Your task to perform on an android device: change the clock display to analog Image 0: 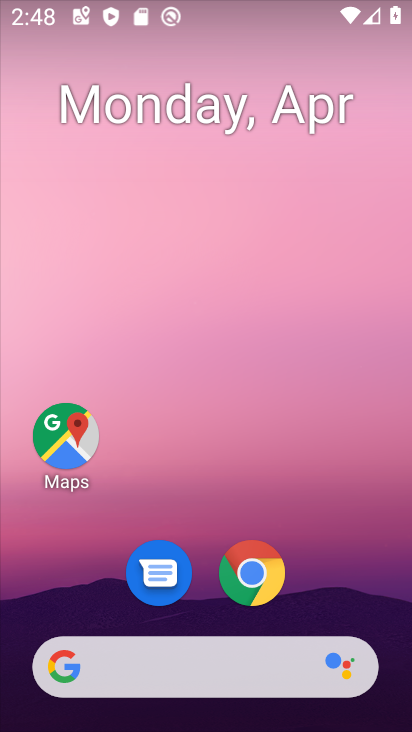
Step 0: drag from (352, 573) to (364, 112)
Your task to perform on an android device: change the clock display to analog Image 1: 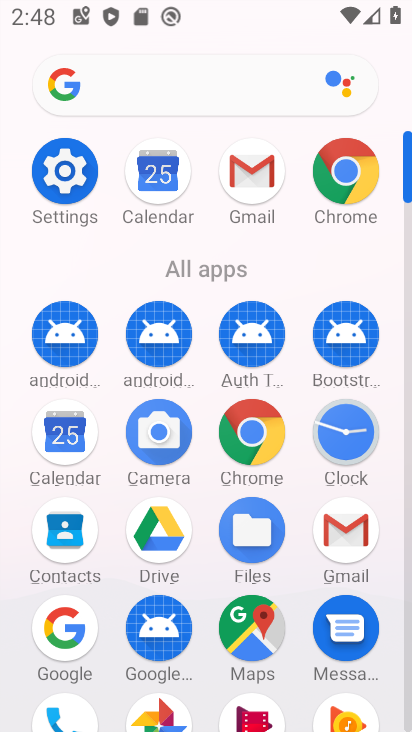
Step 1: click (355, 430)
Your task to perform on an android device: change the clock display to analog Image 2: 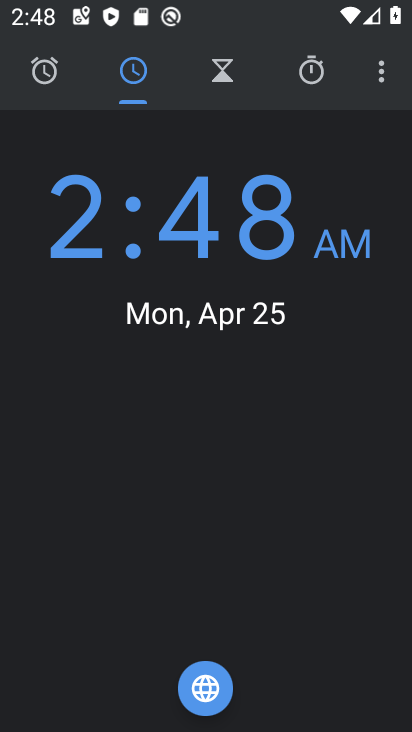
Step 2: click (383, 80)
Your task to perform on an android device: change the clock display to analog Image 3: 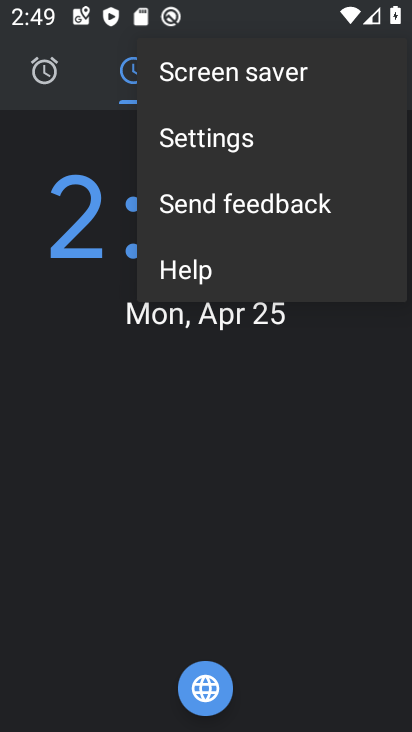
Step 3: click (256, 134)
Your task to perform on an android device: change the clock display to analog Image 4: 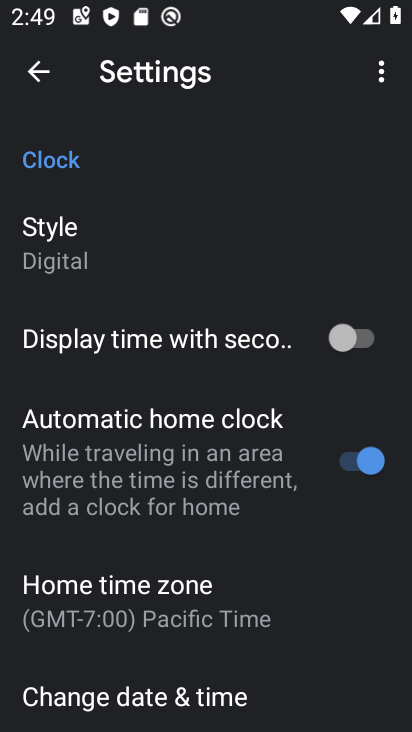
Step 4: click (76, 268)
Your task to perform on an android device: change the clock display to analog Image 5: 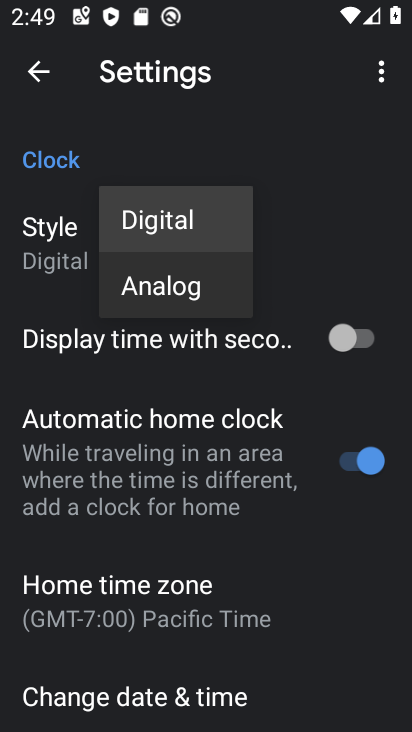
Step 5: click (150, 291)
Your task to perform on an android device: change the clock display to analog Image 6: 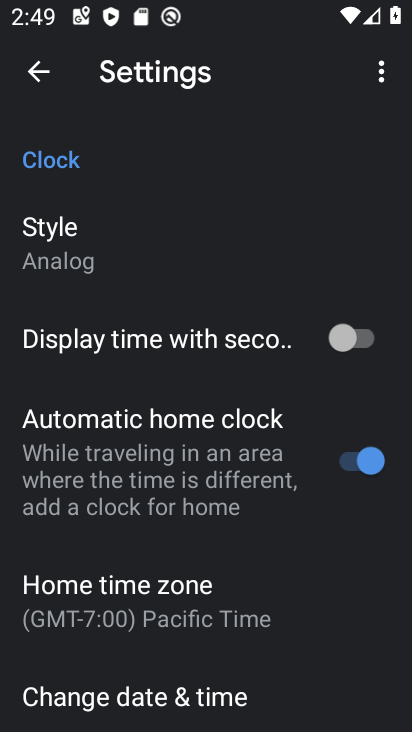
Step 6: task complete